Your task to perform on an android device: choose inbox layout in the gmail app Image 0: 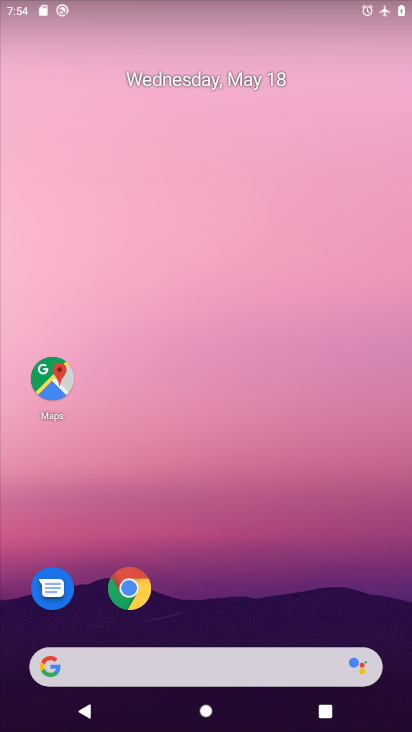
Step 0: drag from (237, 617) to (307, 276)
Your task to perform on an android device: choose inbox layout in the gmail app Image 1: 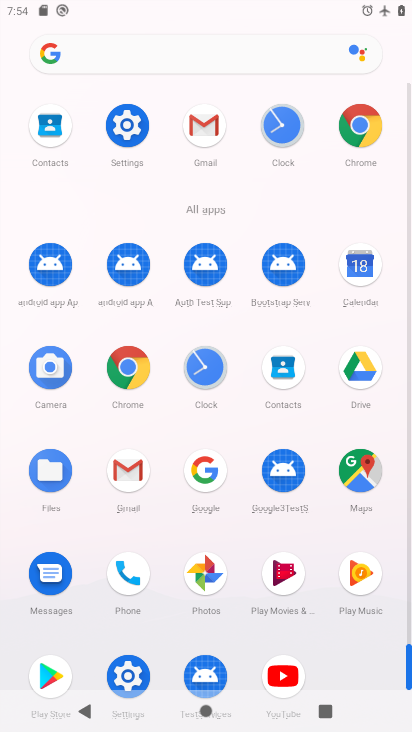
Step 1: click (135, 469)
Your task to perform on an android device: choose inbox layout in the gmail app Image 2: 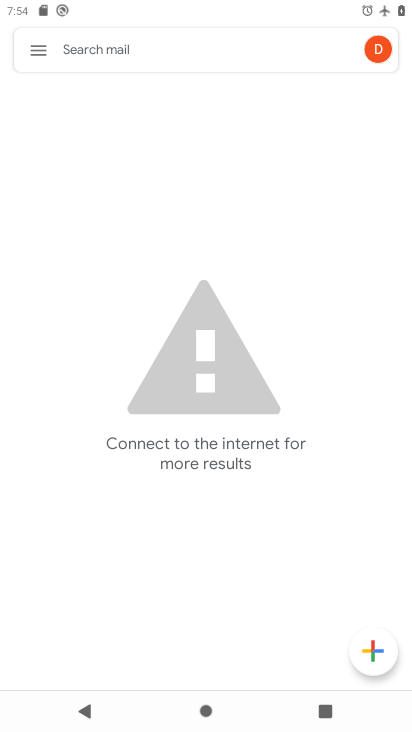
Step 2: click (31, 48)
Your task to perform on an android device: choose inbox layout in the gmail app Image 3: 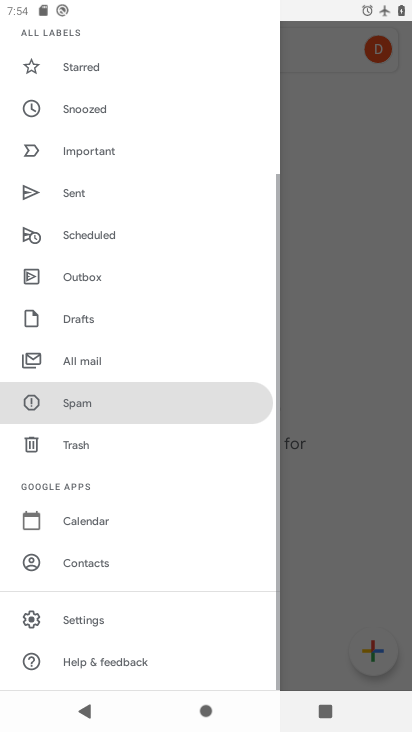
Step 3: drag from (145, 590) to (177, 474)
Your task to perform on an android device: choose inbox layout in the gmail app Image 4: 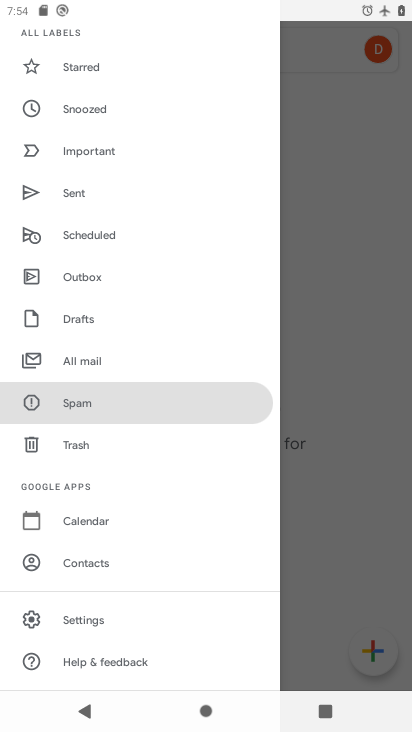
Step 4: click (99, 625)
Your task to perform on an android device: choose inbox layout in the gmail app Image 5: 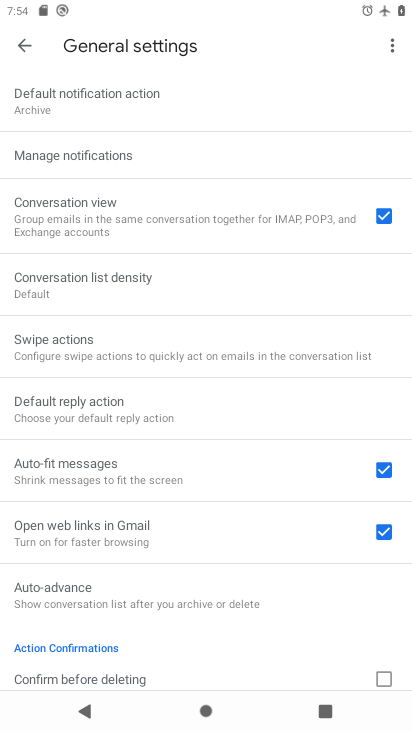
Step 5: click (23, 53)
Your task to perform on an android device: choose inbox layout in the gmail app Image 6: 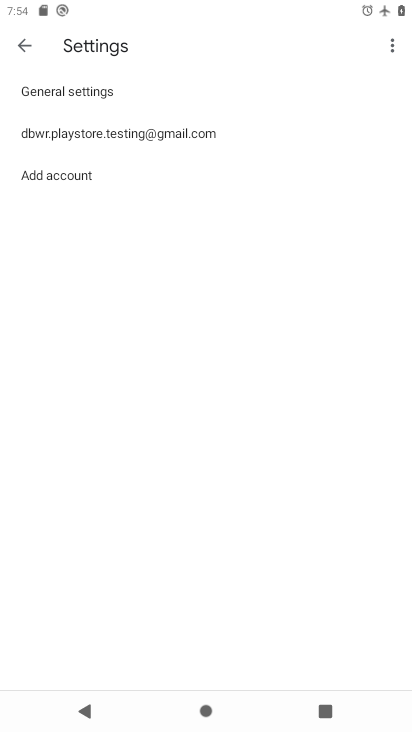
Step 6: click (135, 146)
Your task to perform on an android device: choose inbox layout in the gmail app Image 7: 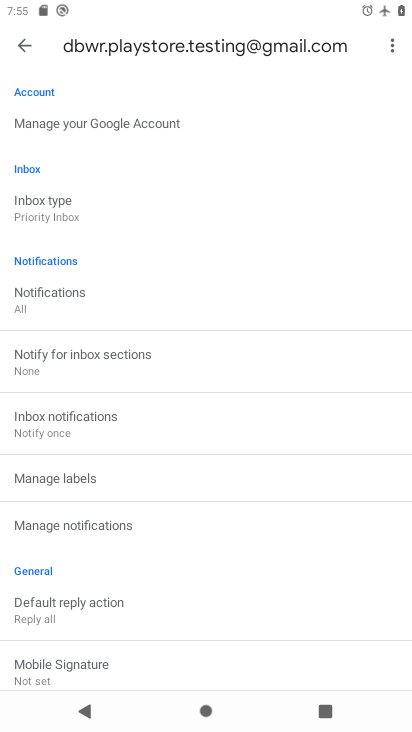
Step 7: click (85, 215)
Your task to perform on an android device: choose inbox layout in the gmail app Image 8: 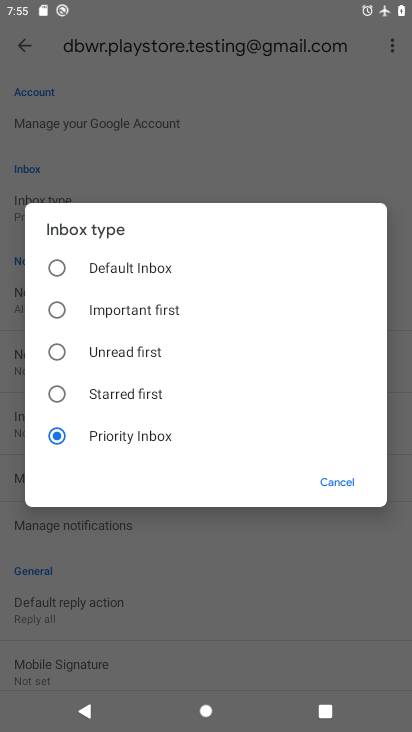
Step 8: click (121, 266)
Your task to perform on an android device: choose inbox layout in the gmail app Image 9: 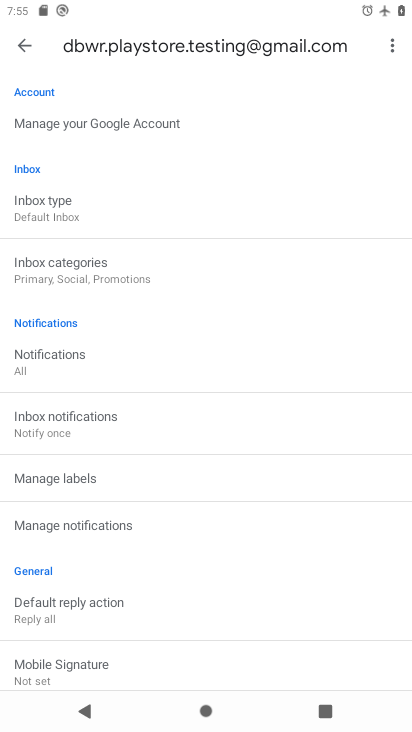
Step 9: task complete